Your task to perform on an android device: Go to wifi settings Image 0: 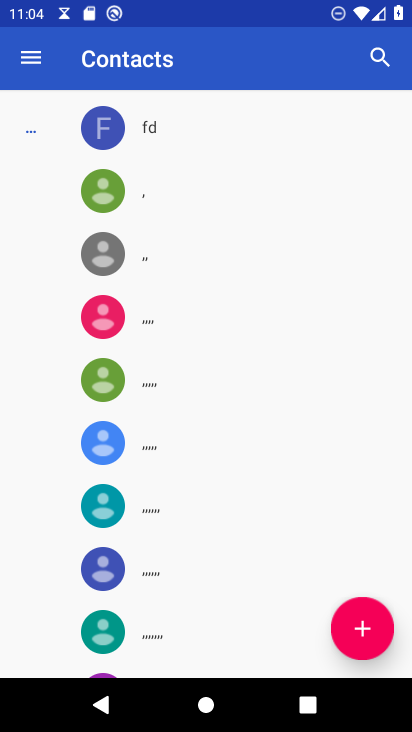
Step 0: press home button
Your task to perform on an android device: Go to wifi settings Image 1: 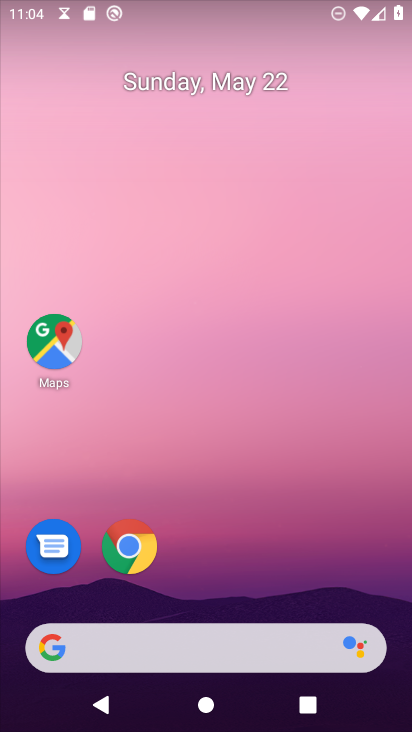
Step 1: drag from (250, 601) to (150, 23)
Your task to perform on an android device: Go to wifi settings Image 2: 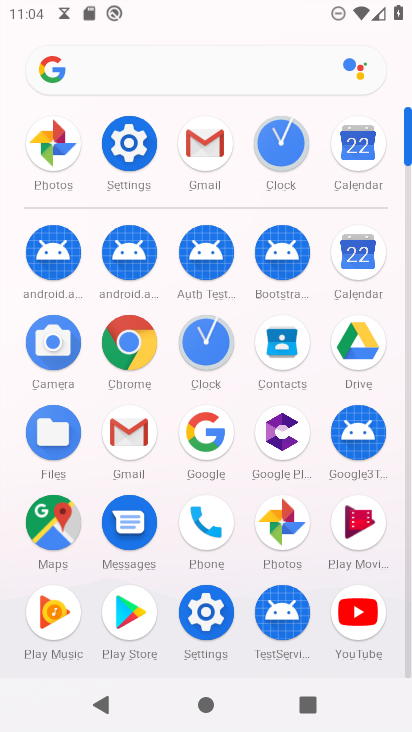
Step 2: click (137, 167)
Your task to perform on an android device: Go to wifi settings Image 3: 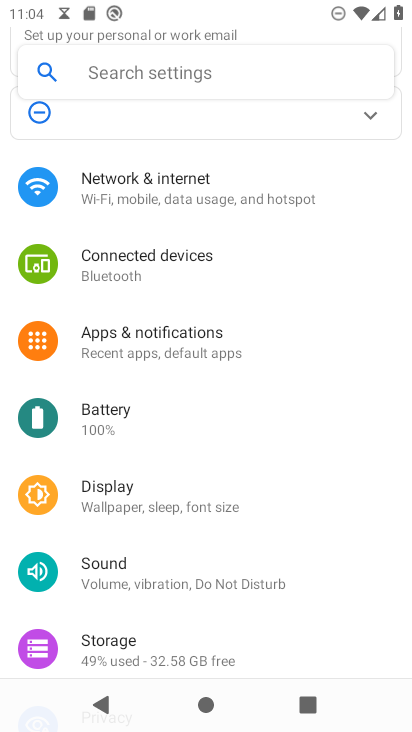
Step 3: click (143, 206)
Your task to perform on an android device: Go to wifi settings Image 4: 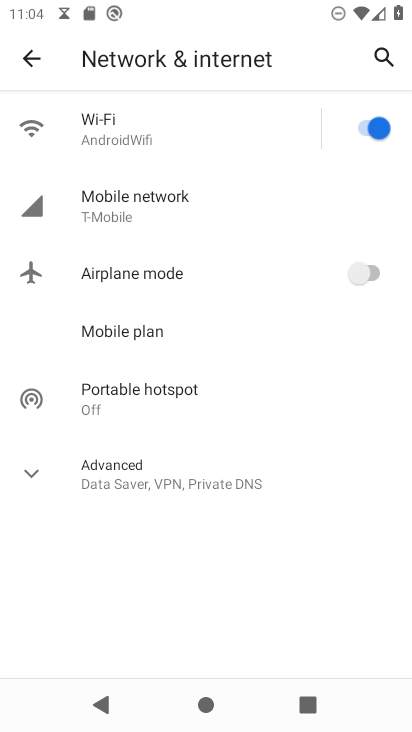
Step 4: click (154, 130)
Your task to perform on an android device: Go to wifi settings Image 5: 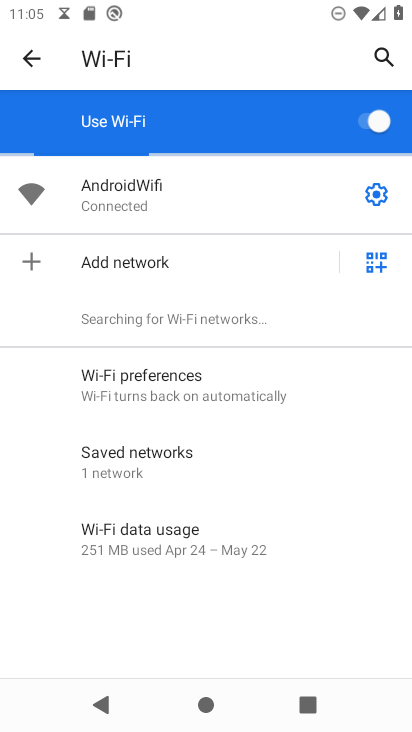
Step 5: task complete